Your task to perform on an android device: set the timer Image 0: 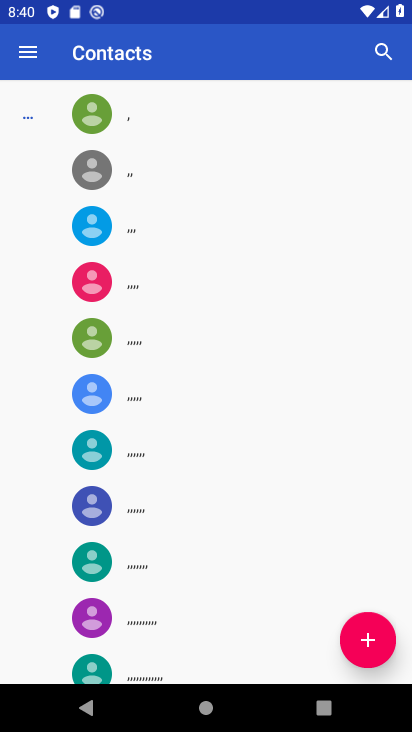
Step 0: press home button
Your task to perform on an android device: set the timer Image 1: 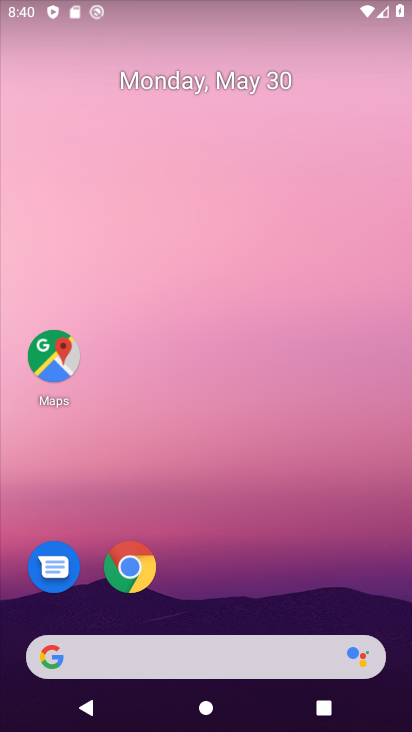
Step 1: drag from (256, 590) to (184, 149)
Your task to perform on an android device: set the timer Image 2: 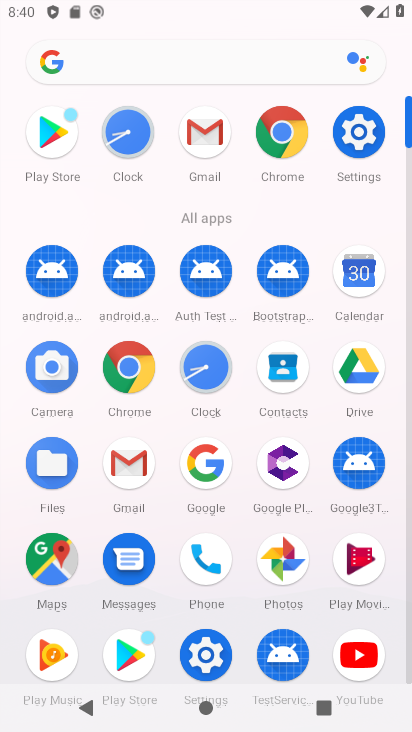
Step 2: click (137, 157)
Your task to perform on an android device: set the timer Image 3: 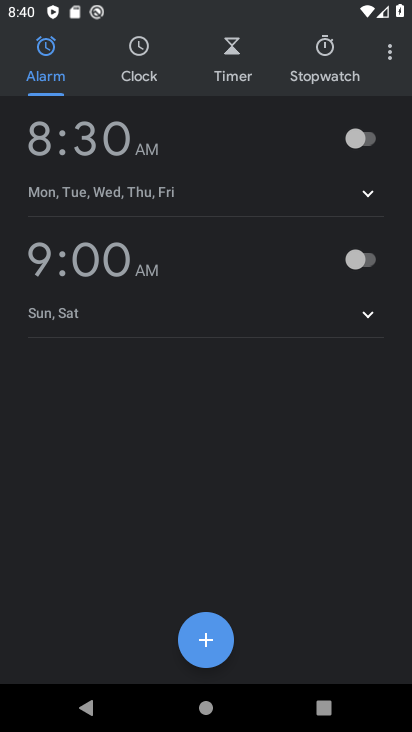
Step 3: click (225, 86)
Your task to perform on an android device: set the timer Image 4: 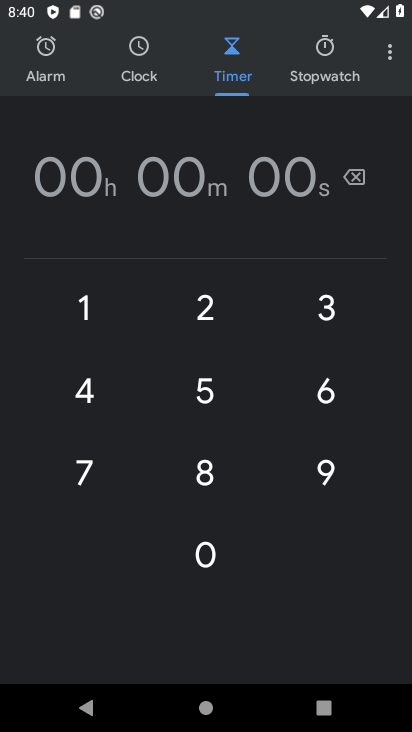
Step 4: task complete